Your task to perform on an android device: Open Maps and search for coffee Image 0: 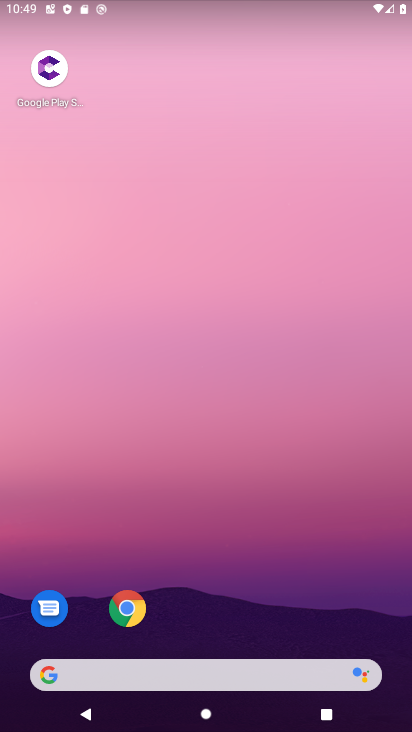
Step 0: drag from (164, 603) to (182, 267)
Your task to perform on an android device: Open Maps and search for coffee Image 1: 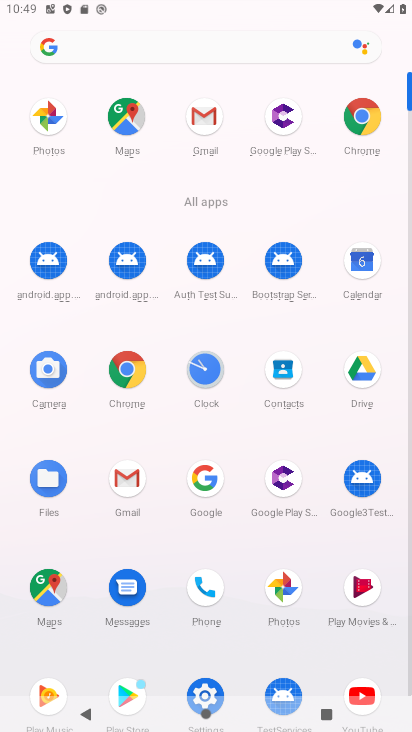
Step 1: click (29, 592)
Your task to perform on an android device: Open Maps and search for coffee Image 2: 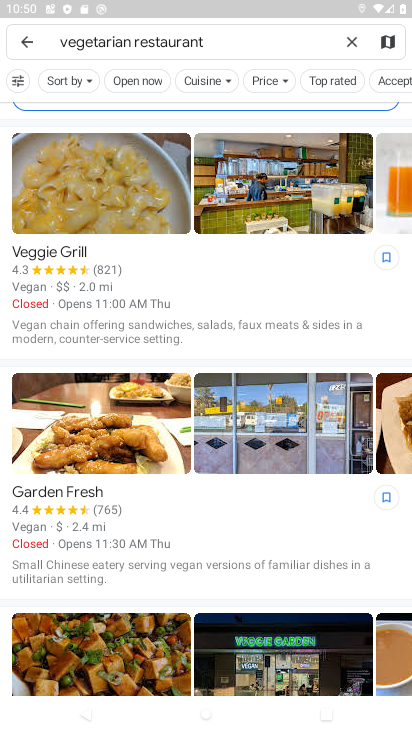
Step 2: click (355, 40)
Your task to perform on an android device: Open Maps and search for coffee Image 3: 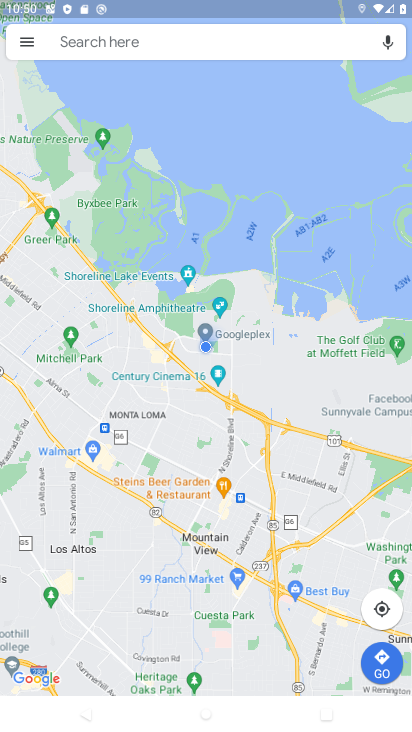
Step 3: click (182, 41)
Your task to perform on an android device: Open Maps and search for coffee Image 4: 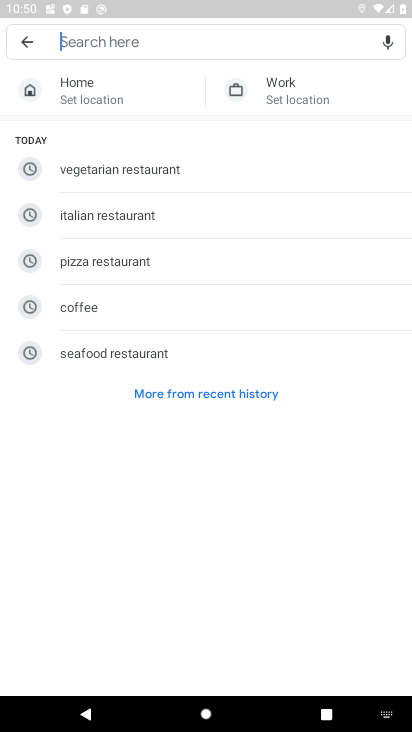
Step 4: click (72, 306)
Your task to perform on an android device: Open Maps and search for coffee Image 5: 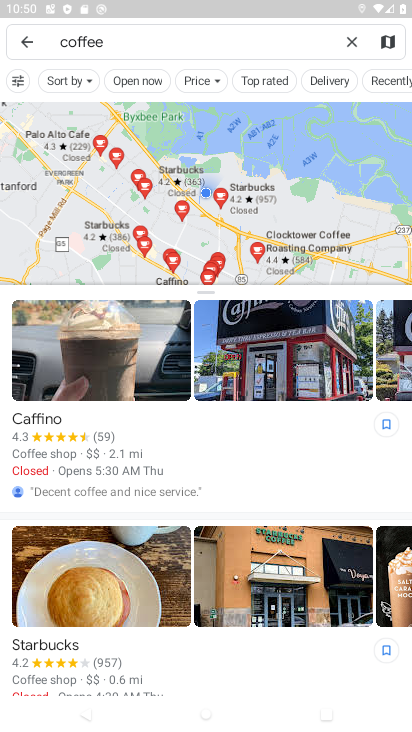
Step 5: task complete